Your task to perform on an android device: Open the calendar app, open the side menu, and click the "Day" option Image 0: 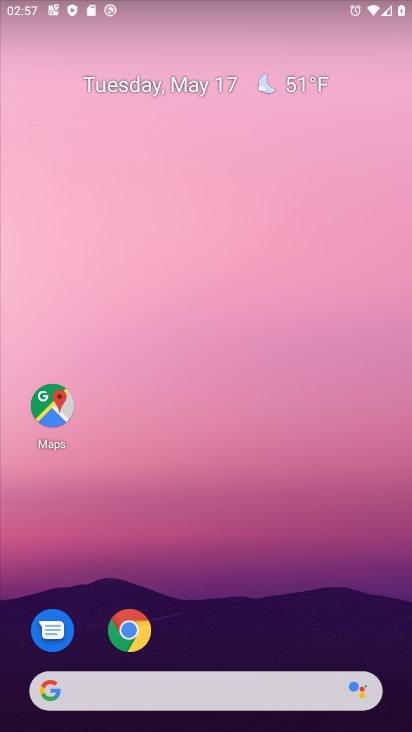
Step 0: drag from (221, 507) to (293, 55)
Your task to perform on an android device: Open the calendar app, open the side menu, and click the "Day" option Image 1: 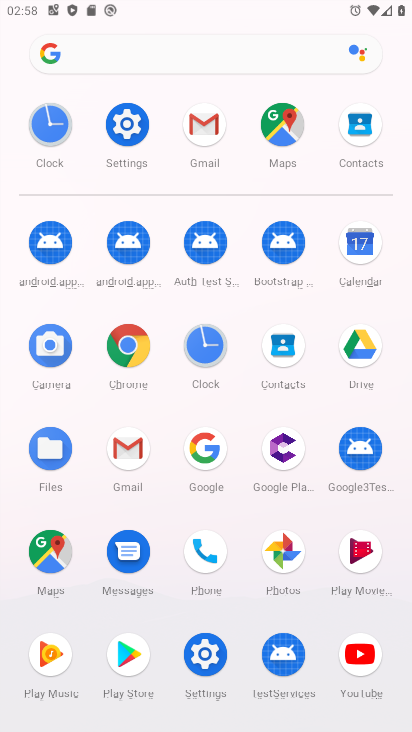
Step 1: click (358, 260)
Your task to perform on an android device: Open the calendar app, open the side menu, and click the "Day" option Image 2: 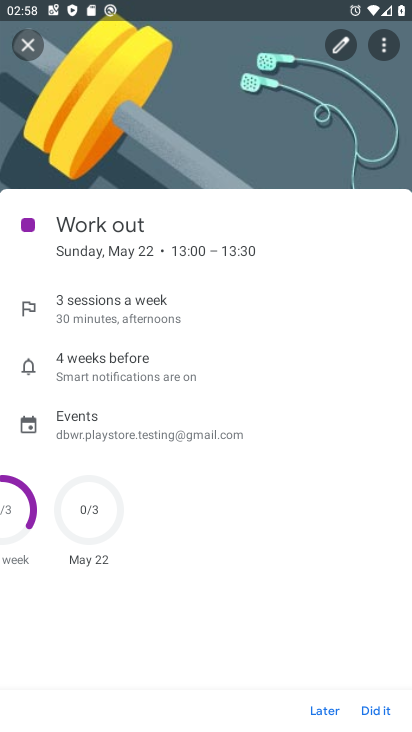
Step 2: click (337, 710)
Your task to perform on an android device: Open the calendar app, open the side menu, and click the "Day" option Image 3: 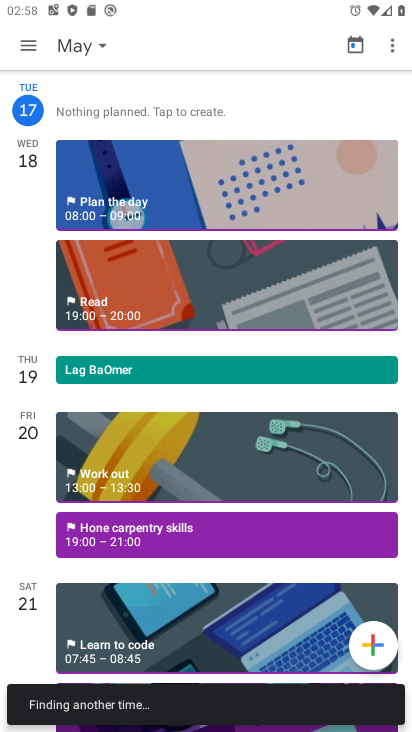
Step 3: click (24, 53)
Your task to perform on an android device: Open the calendar app, open the side menu, and click the "Day" option Image 4: 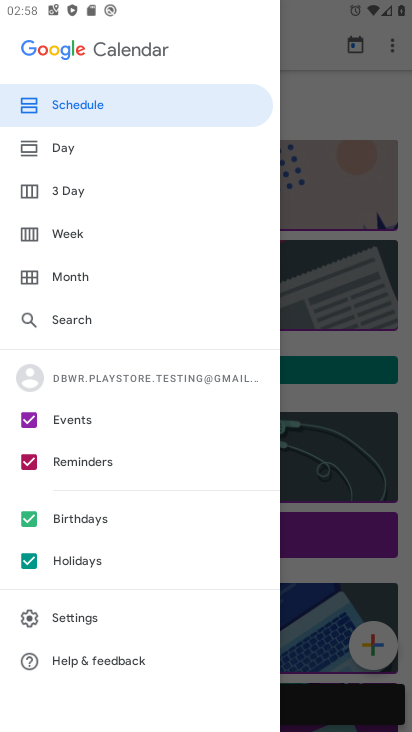
Step 4: click (71, 143)
Your task to perform on an android device: Open the calendar app, open the side menu, and click the "Day" option Image 5: 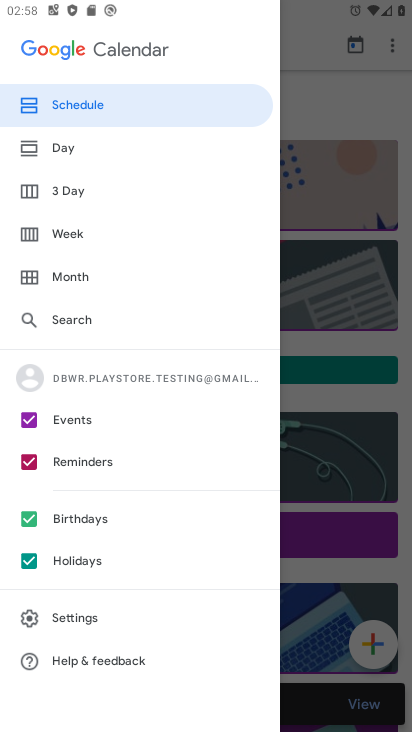
Step 5: click (55, 146)
Your task to perform on an android device: Open the calendar app, open the side menu, and click the "Day" option Image 6: 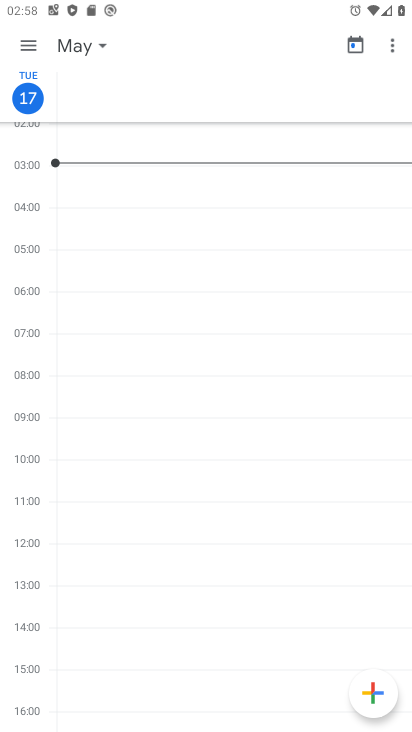
Step 6: task complete